Your task to perform on an android device: Open calendar and show me the fourth week of next month Image 0: 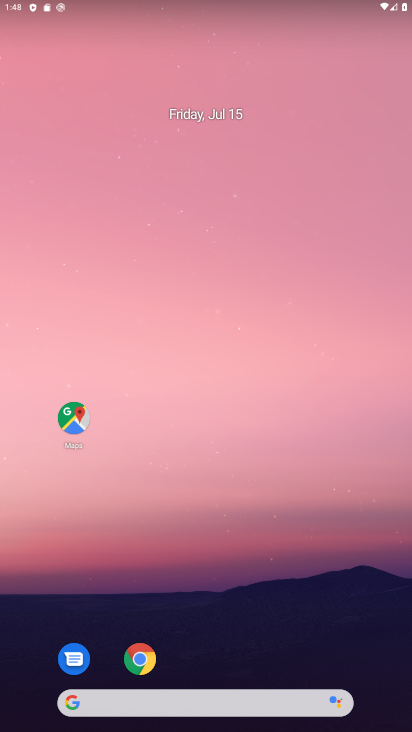
Step 0: drag from (199, 689) to (222, 190)
Your task to perform on an android device: Open calendar and show me the fourth week of next month Image 1: 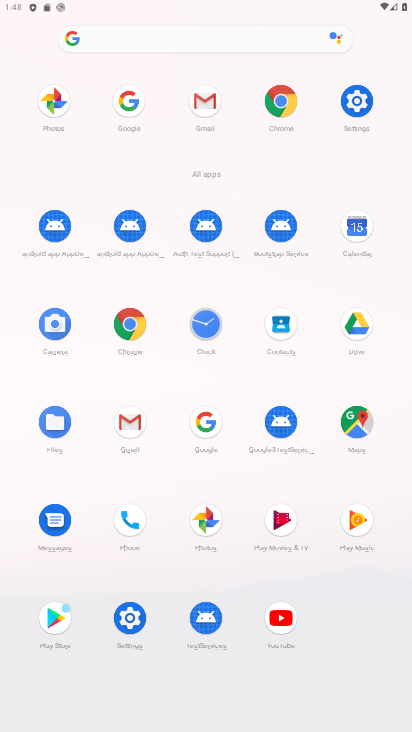
Step 1: click (353, 229)
Your task to perform on an android device: Open calendar and show me the fourth week of next month Image 2: 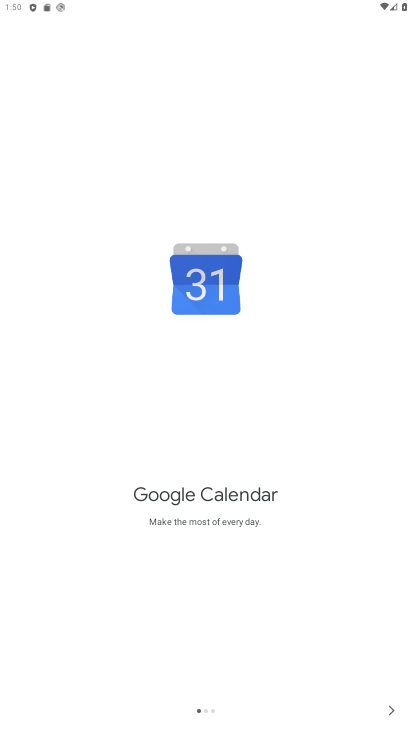
Step 2: click (383, 709)
Your task to perform on an android device: Open calendar and show me the fourth week of next month Image 3: 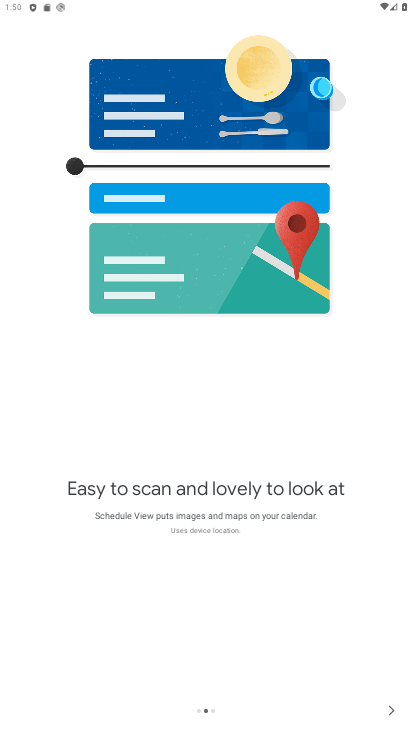
Step 3: click (383, 709)
Your task to perform on an android device: Open calendar and show me the fourth week of next month Image 4: 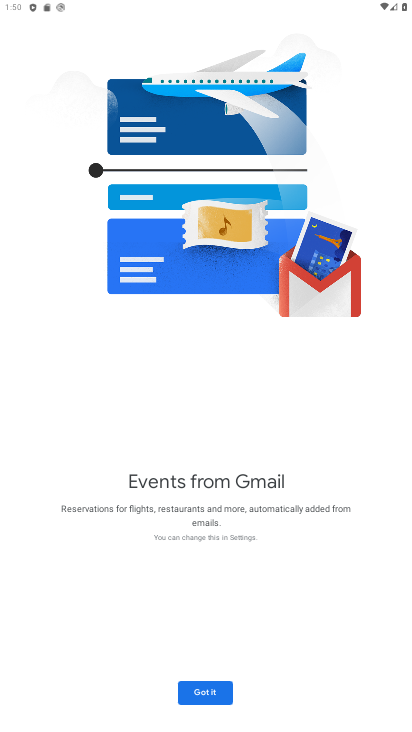
Step 4: click (201, 688)
Your task to perform on an android device: Open calendar and show me the fourth week of next month Image 5: 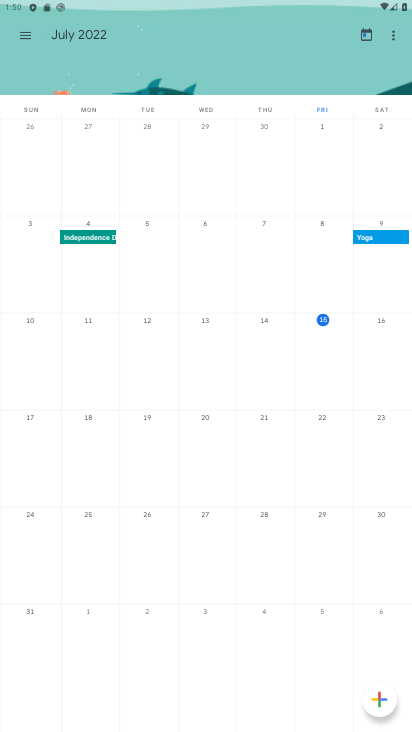
Step 5: click (84, 33)
Your task to perform on an android device: Open calendar and show me the fourth week of next month Image 6: 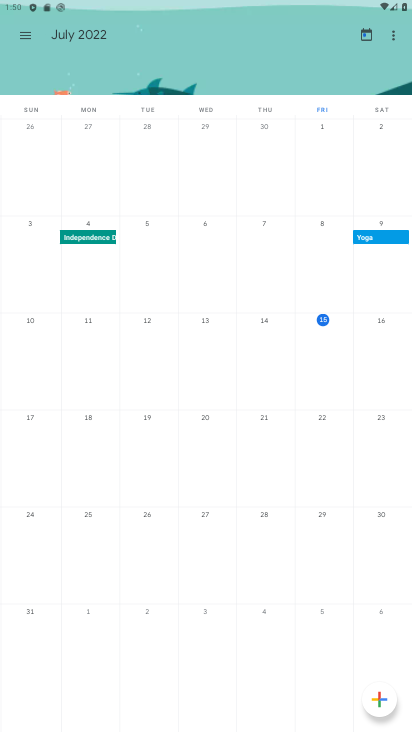
Step 6: drag from (382, 551) to (12, 596)
Your task to perform on an android device: Open calendar and show me the fourth week of next month Image 7: 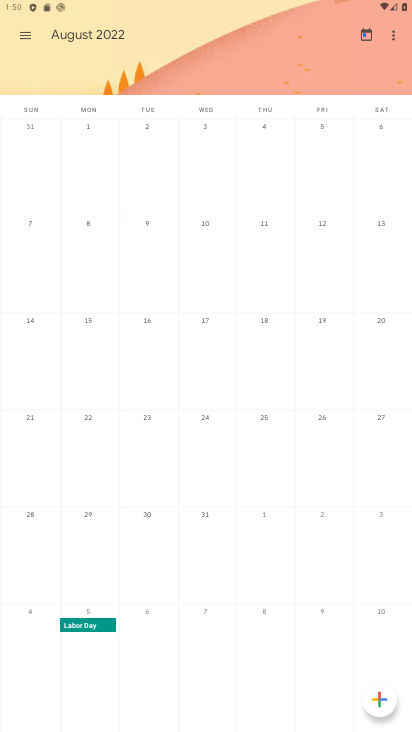
Step 7: click (44, 454)
Your task to perform on an android device: Open calendar and show me the fourth week of next month Image 8: 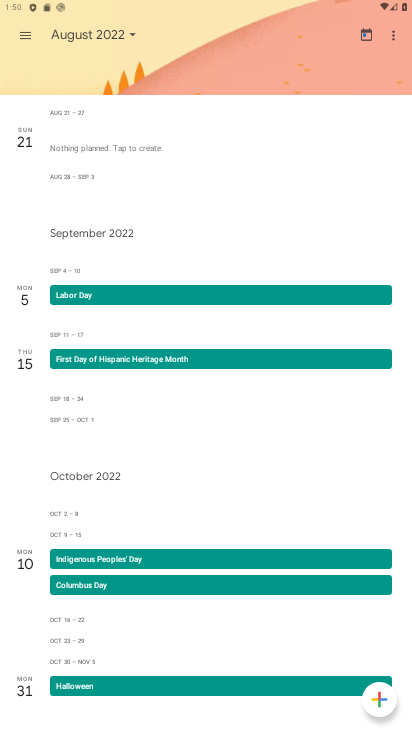
Step 8: task complete